Your task to perform on an android device: Add "logitech g pro" to the cart on walmart.com Image 0: 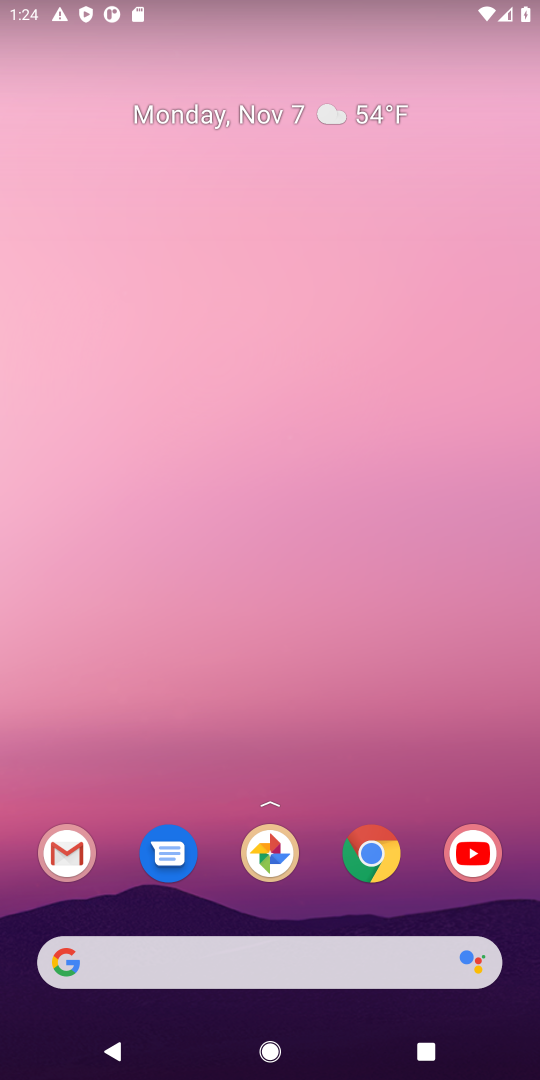
Step 0: drag from (270, 786) to (349, 241)
Your task to perform on an android device: Add "logitech g pro" to the cart on walmart.com Image 1: 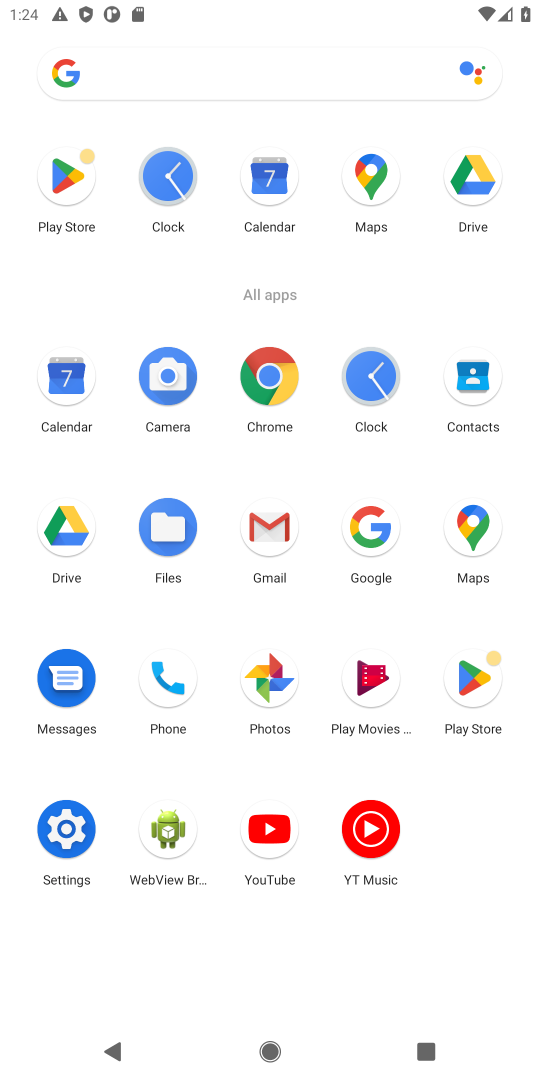
Step 1: click (268, 395)
Your task to perform on an android device: Add "logitech g pro" to the cart on walmart.com Image 2: 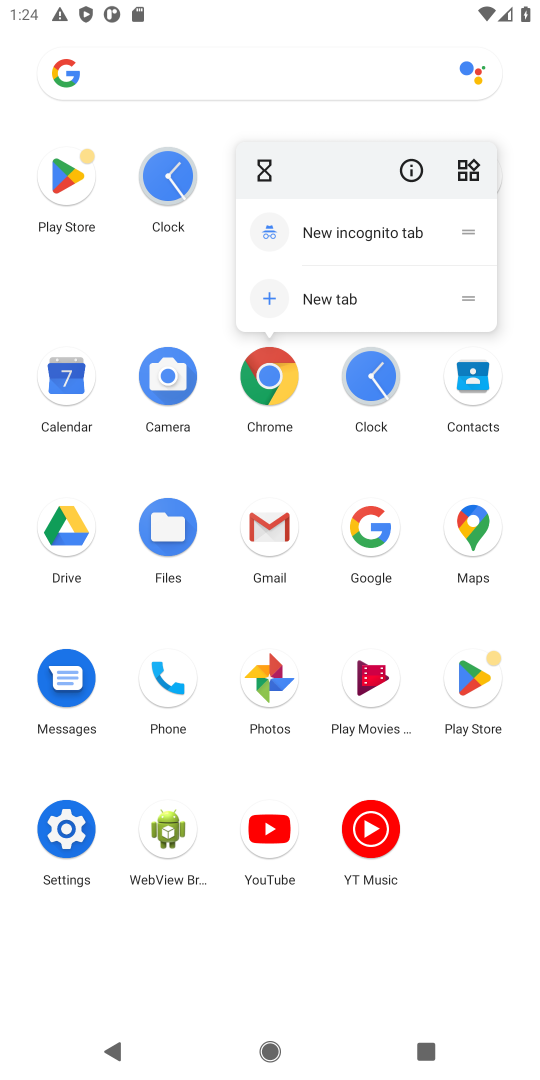
Step 2: click (268, 395)
Your task to perform on an android device: Add "logitech g pro" to the cart on walmart.com Image 3: 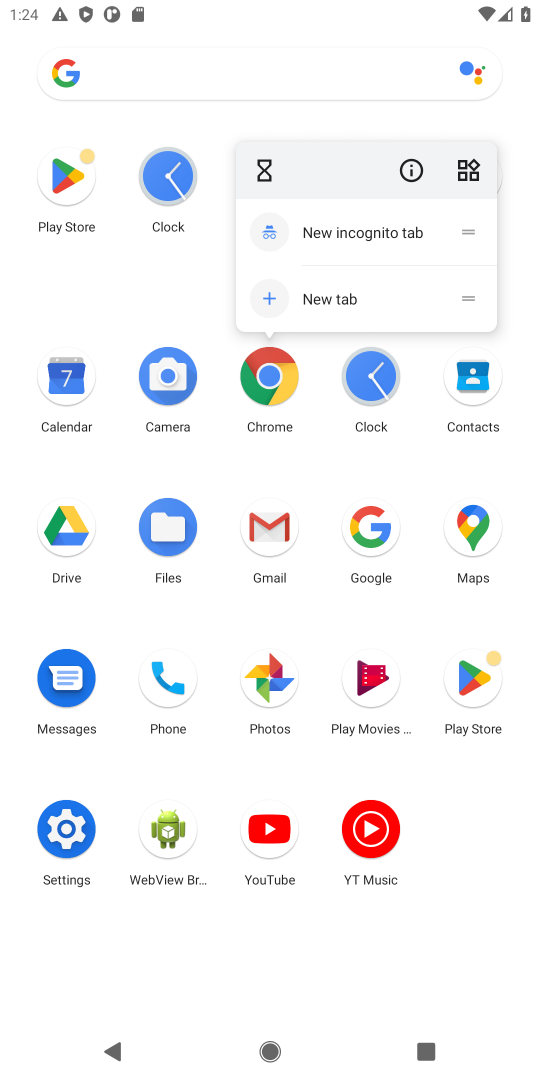
Step 3: click (268, 395)
Your task to perform on an android device: Add "logitech g pro" to the cart on walmart.com Image 4: 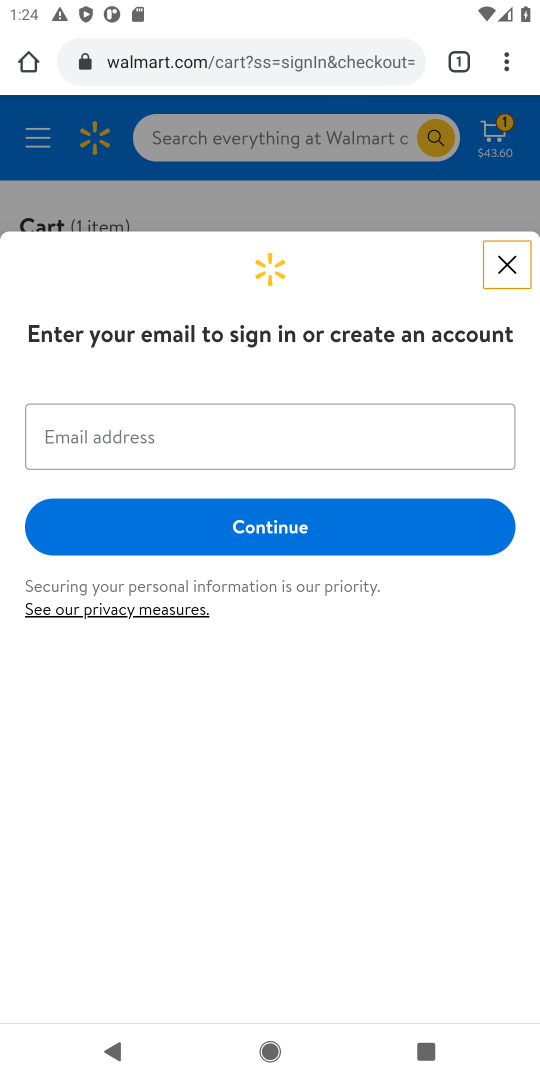
Step 4: click (509, 275)
Your task to perform on an android device: Add "logitech g pro" to the cart on walmart.com Image 5: 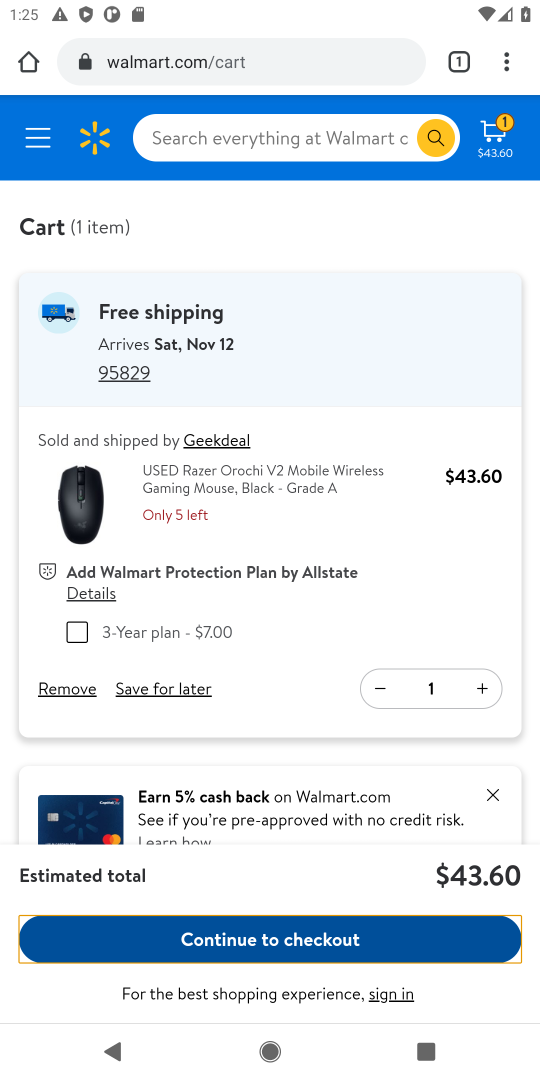
Step 5: click (362, 116)
Your task to perform on an android device: Add "logitech g pro" to the cart on walmart.com Image 6: 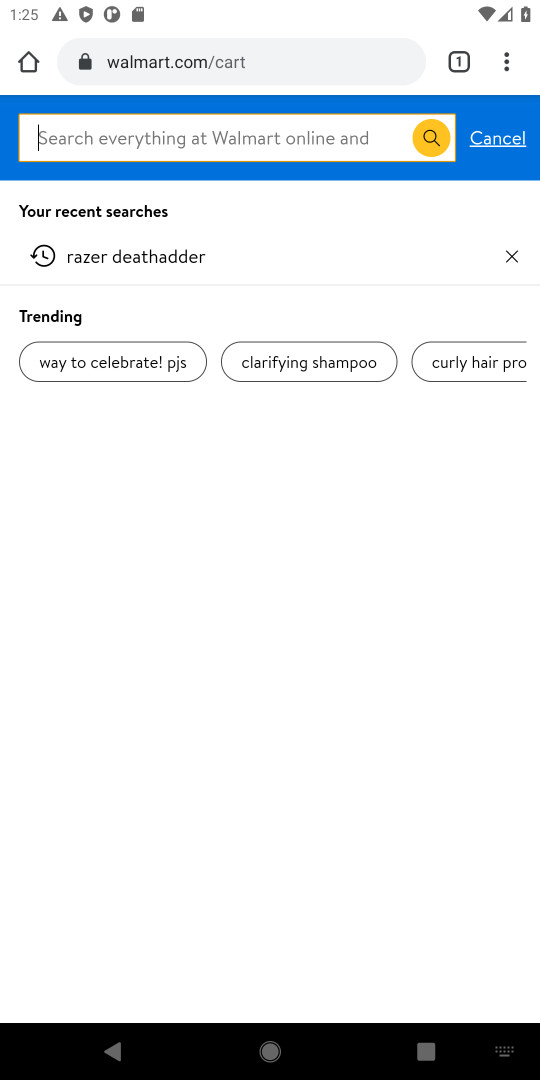
Step 6: type "logitech g pro"
Your task to perform on an android device: Add "logitech g pro" to the cart on walmart.com Image 7: 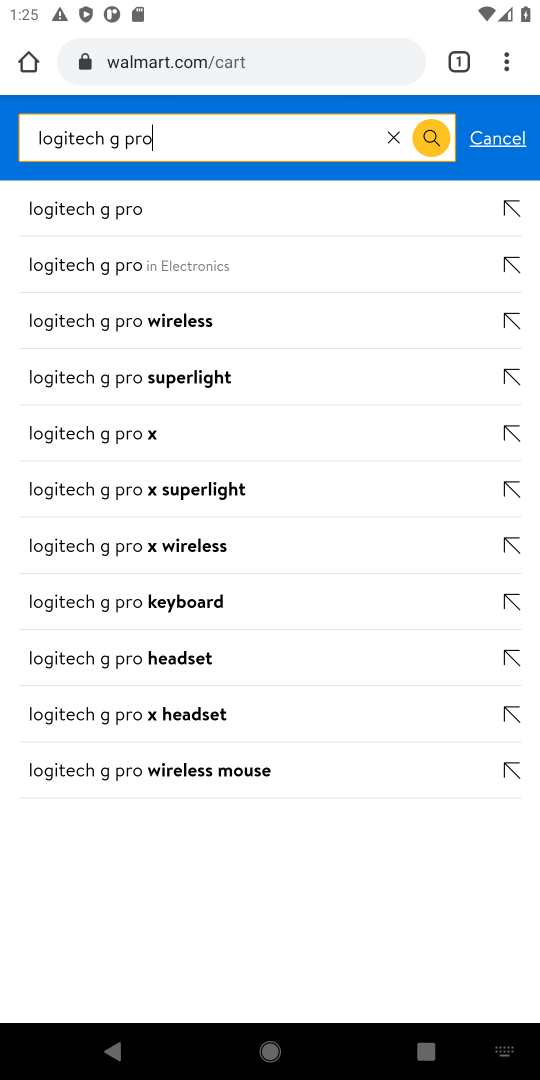
Step 7: press enter
Your task to perform on an android device: Add "logitech g pro" to the cart on walmart.com Image 8: 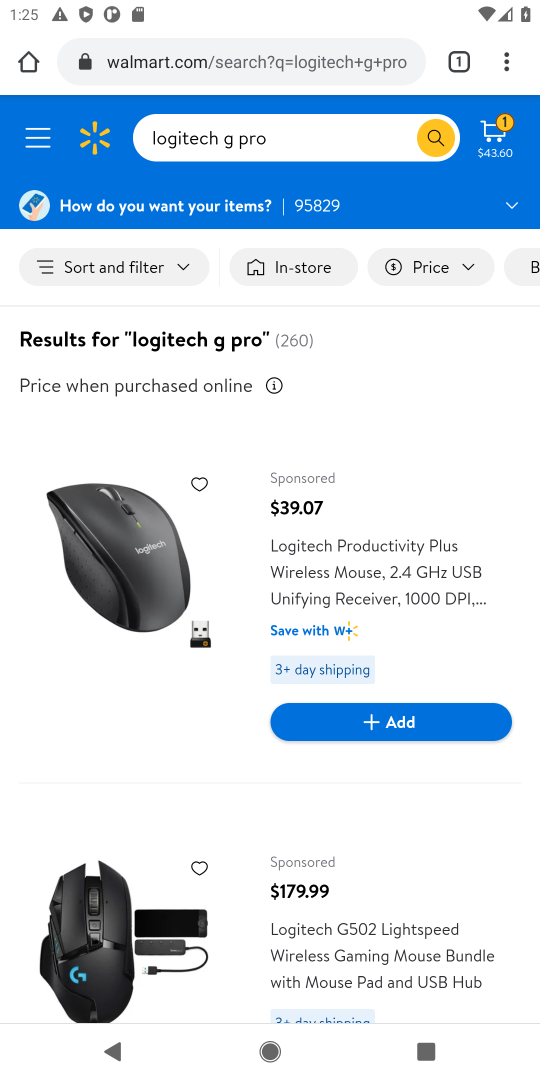
Step 8: click (334, 721)
Your task to perform on an android device: Add "logitech g pro" to the cart on walmart.com Image 9: 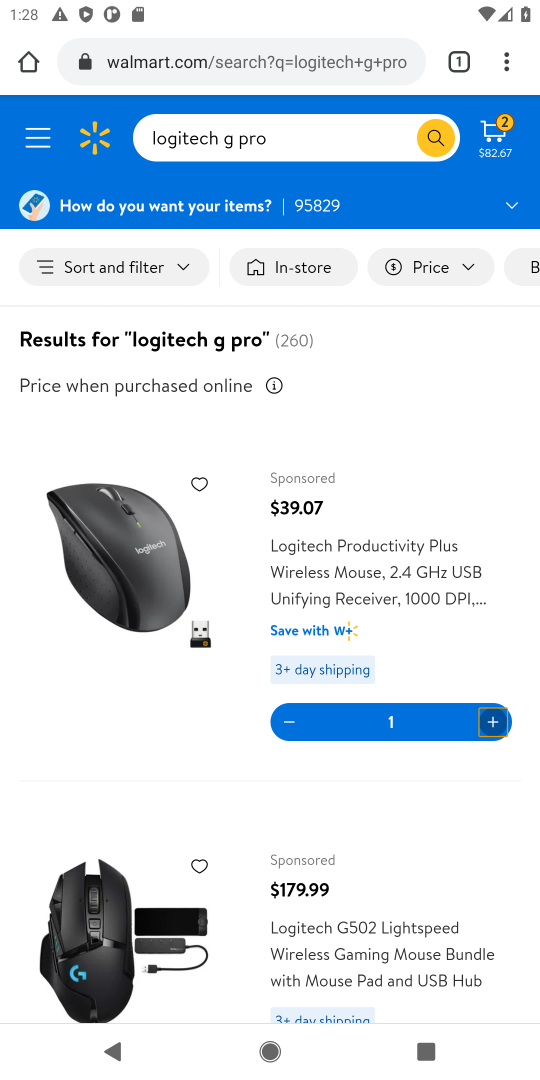
Step 9: task complete